Your task to perform on an android device: Go to Wikipedia Image 0: 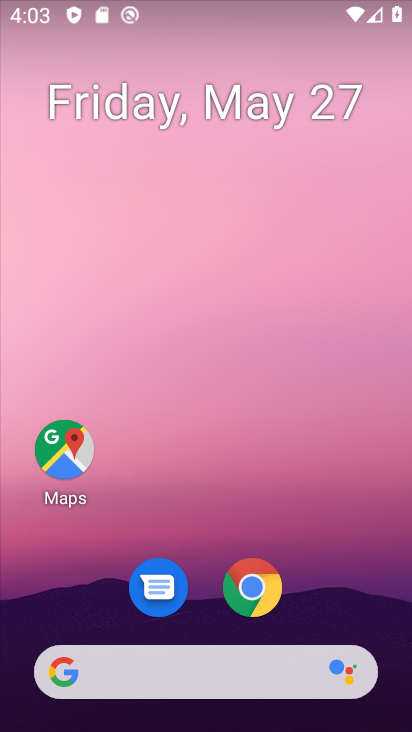
Step 0: drag from (306, 525) to (187, 35)
Your task to perform on an android device: Go to Wikipedia Image 1: 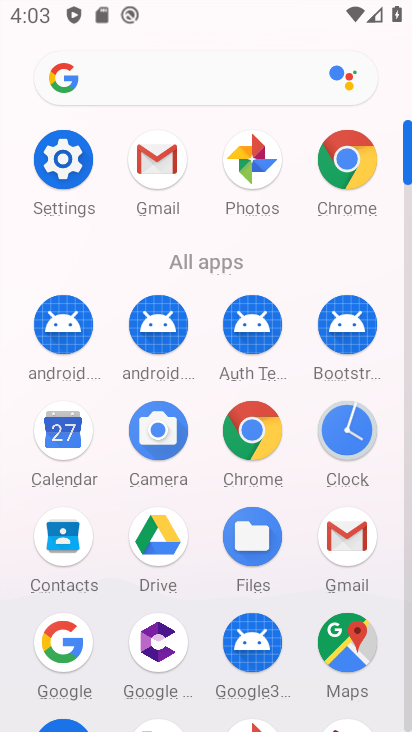
Step 1: click (349, 155)
Your task to perform on an android device: Go to Wikipedia Image 2: 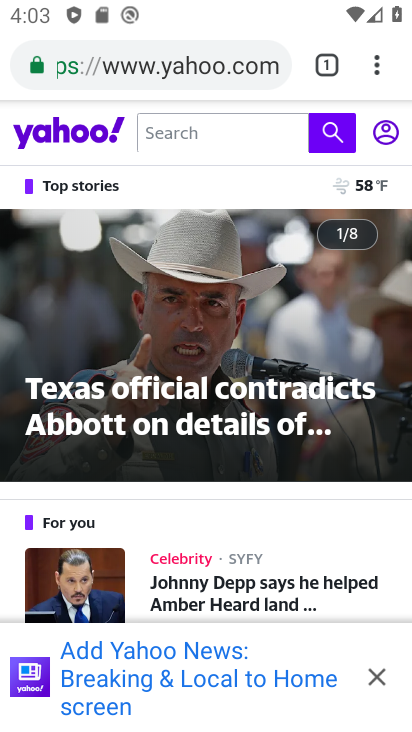
Step 2: click (200, 69)
Your task to perform on an android device: Go to Wikipedia Image 3: 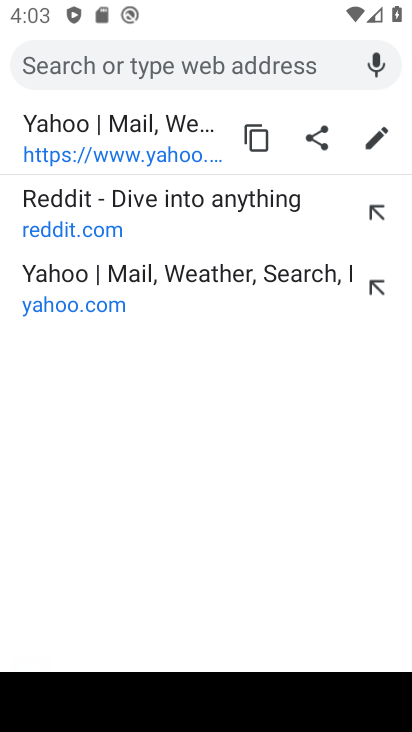
Step 3: type "Wikipedia"
Your task to perform on an android device: Go to Wikipedia Image 4: 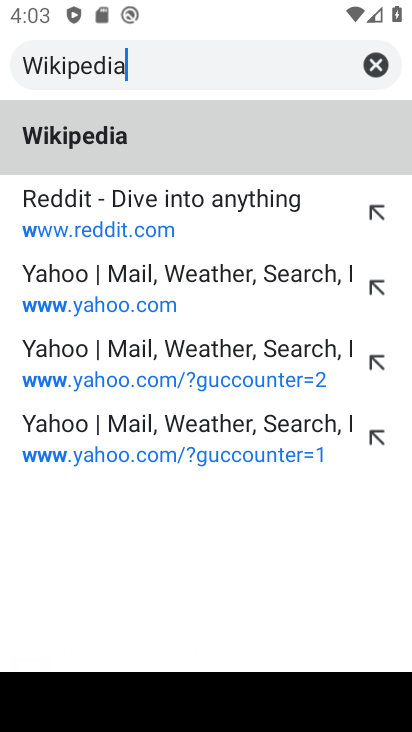
Step 4: type ""
Your task to perform on an android device: Go to Wikipedia Image 5: 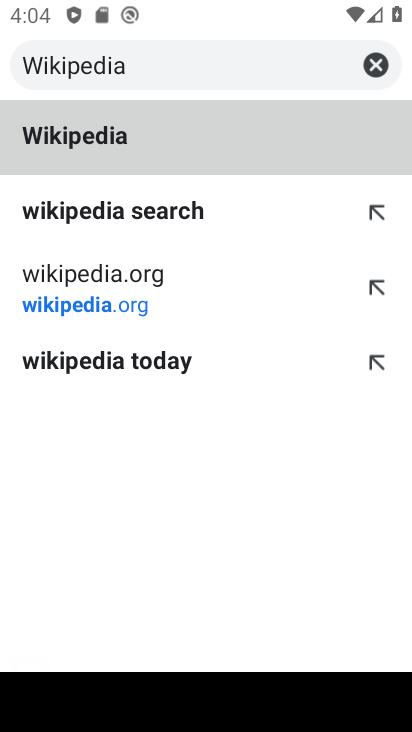
Step 5: click (53, 284)
Your task to perform on an android device: Go to Wikipedia Image 6: 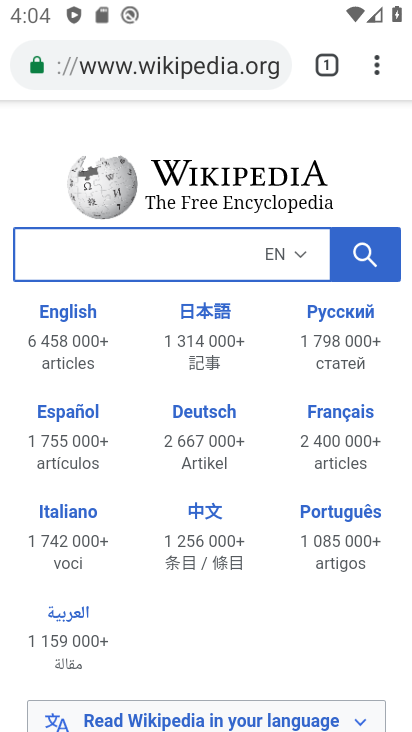
Step 6: task complete